Your task to perform on an android device: turn off smart reply in the gmail app Image 0: 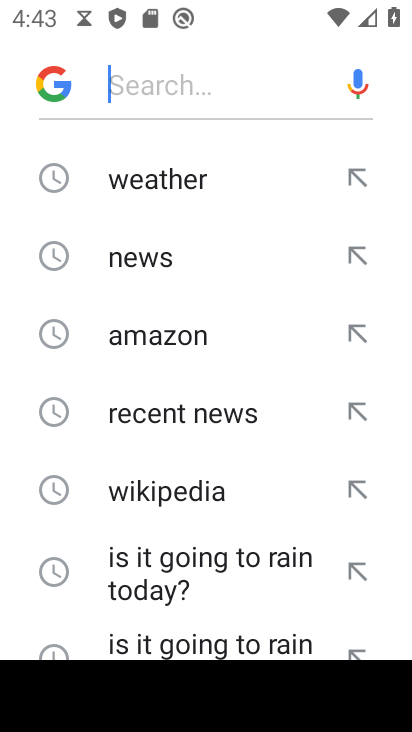
Step 0: press back button
Your task to perform on an android device: turn off smart reply in the gmail app Image 1: 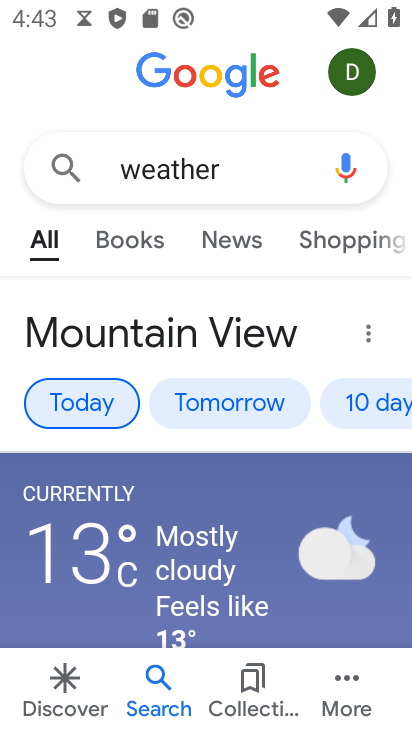
Step 1: press back button
Your task to perform on an android device: turn off smart reply in the gmail app Image 2: 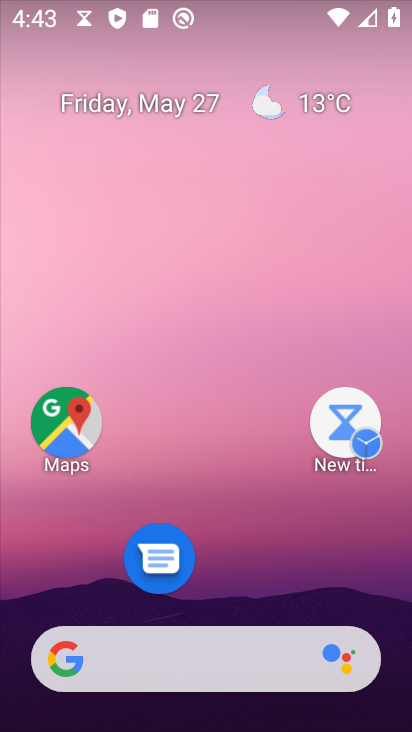
Step 2: drag from (276, 666) to (134, 52)
Your task to perform on an android device: turn off smart reply in the gmail app Image 3: 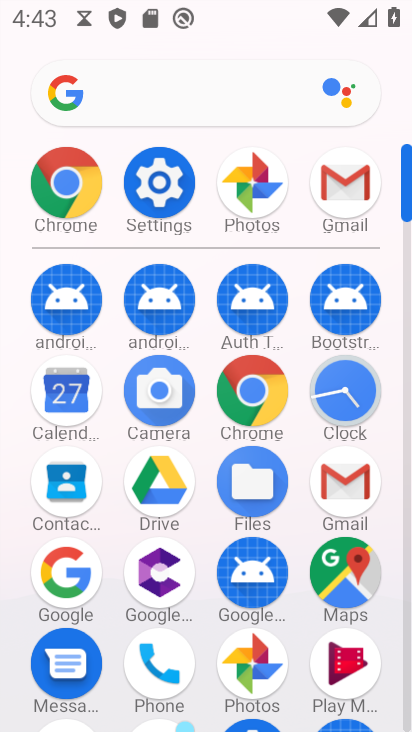
Step 3: click (345, 493)
Your task to perform on an android device: turn off smart reply in the gmail app Image 4: 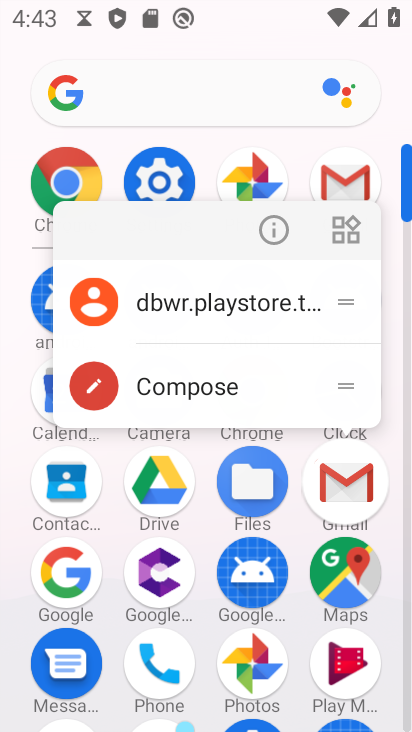
Step 4: click (346, 494)
Your task to perform on an android device: turn off smart reply in the gmail app Image 5: 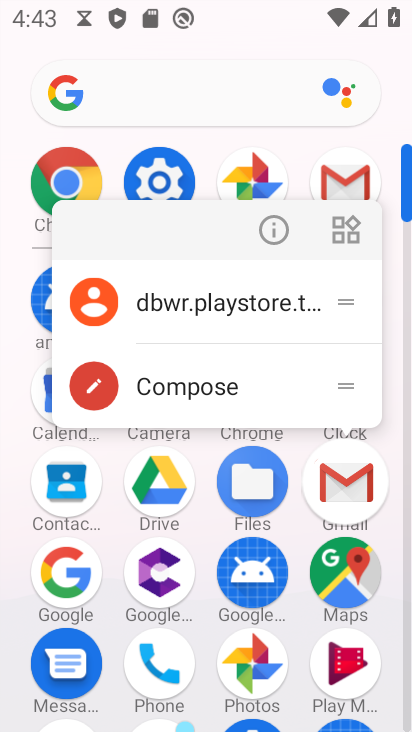
Step 5: click (346, 494)
Your task to perform on an android device: turn off smart reply in the gmail app Image 6: 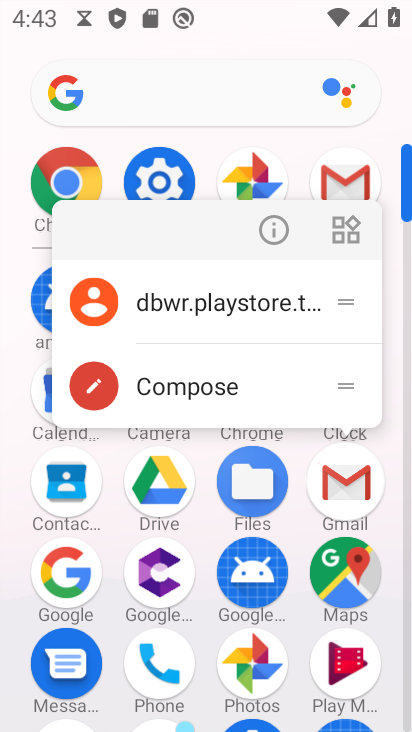
Step 6: click (346, 494)
Your task to perform on an android device: turn off smart reply in the gmail app Image 7: 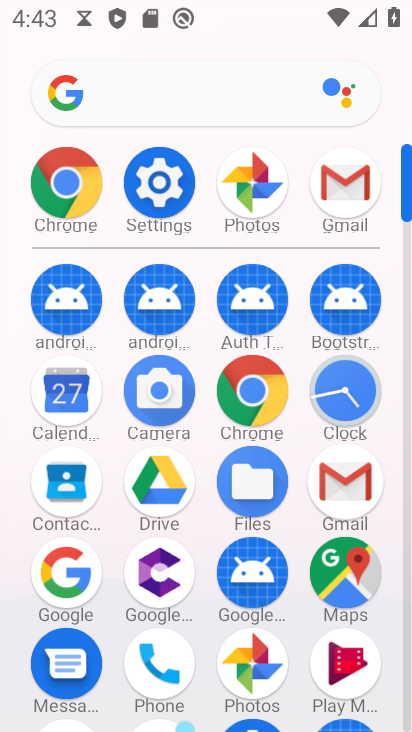
Step 7: click (347, 492)
Your task to perform on an android device: turn off smart reply in the gmail app Image 8: 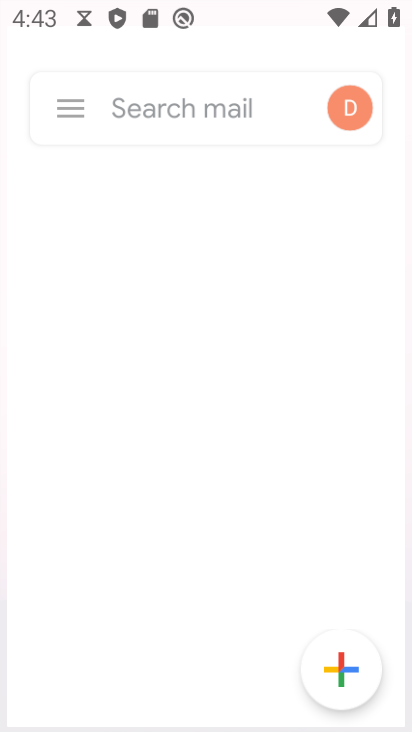
Step 8: click (337, 467)
Your task to perform on an android device: turn off smart reply in the gmail app Image 9: 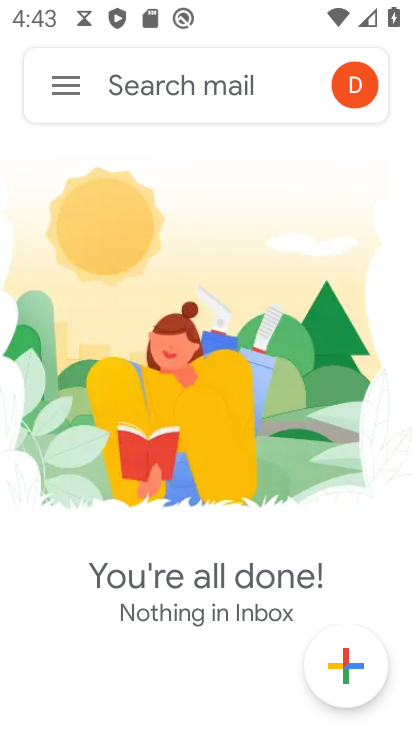
Step 9: click (337, 467)
Your task to perform on an android device: turn off smart reply in the gmail app Image 10: 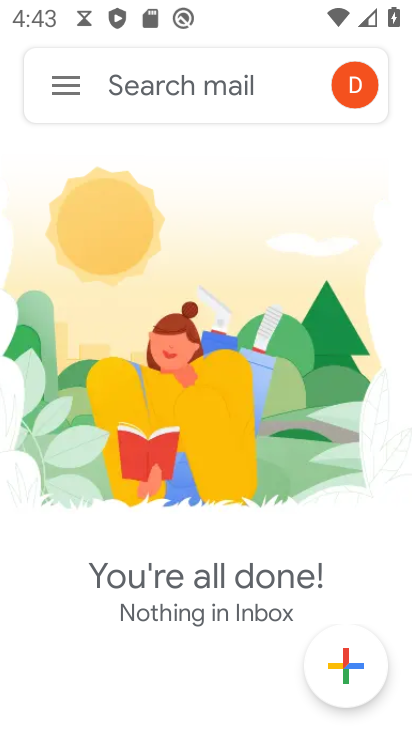
Step 10: click (337, 466)
Your task to perform on an android device: turn off smart reply in the gmail app Image 11: 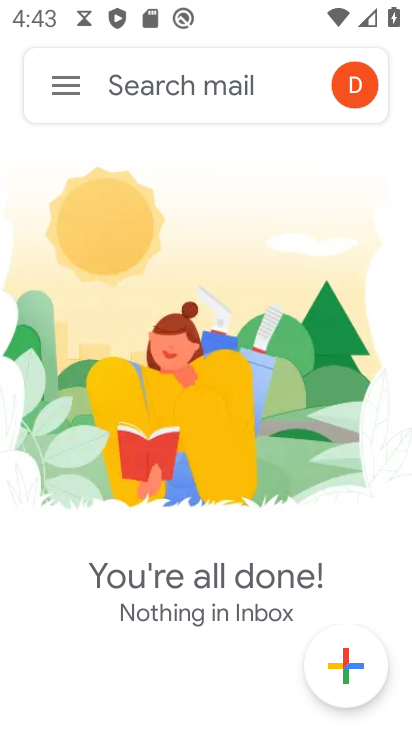
Step 11: click (70, 89)
Your task to perform on an android device: turn off smart reply in the gmail app Image 12: 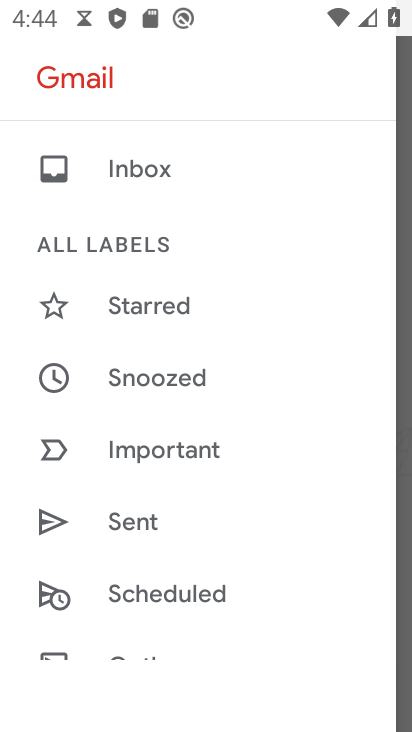
Step 12: drag from (141, 333) to (116, 175)
Your task to perform on an android device: turn off smart reply in the gmail app Image 13: 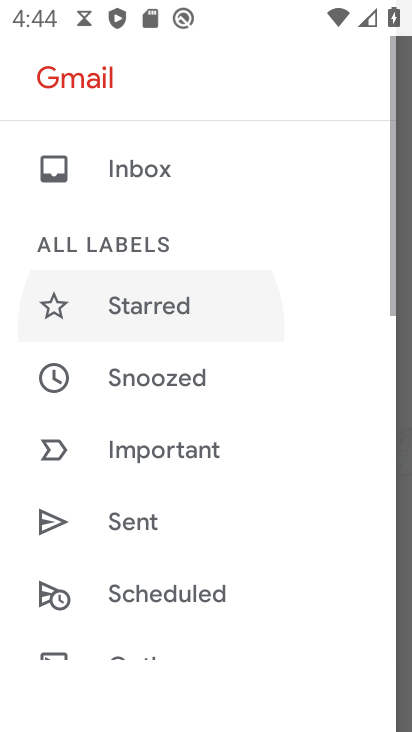
Step 13: drag from (196, 500) to (195, 160)
Your task to perform on an android device: turn off smart reply in the gmail app Image 14: 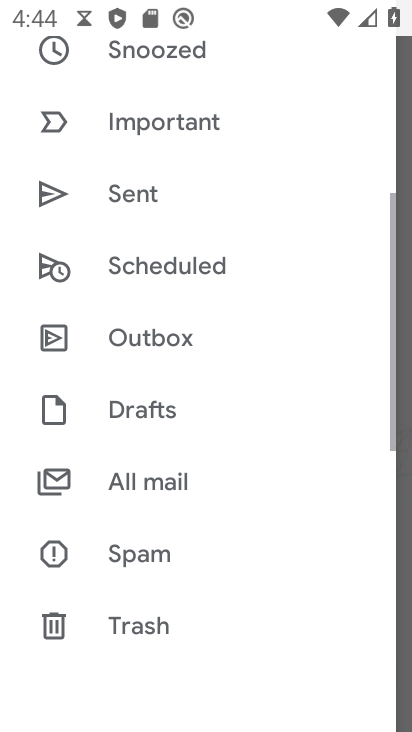
Step 14: drag from (222, 246) to (200, 172)
Your task to perform on an android device: turn off smart reply in the gmail app Image 15: 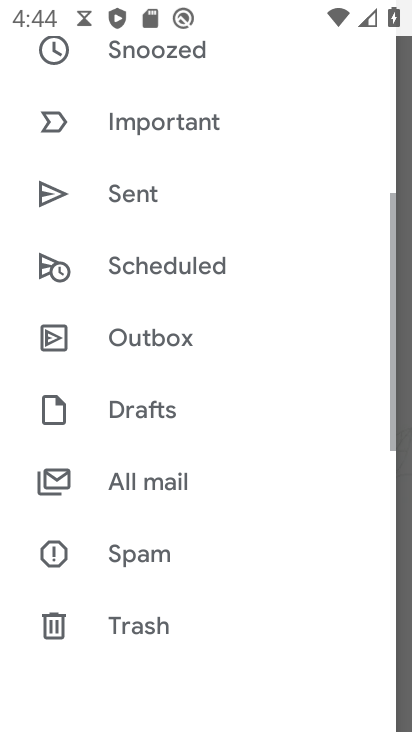
Step 15: drag from (204, 317) to (204, 52)
Your task to perform on an android device: turn off smart reply in the gmail app Image 16: 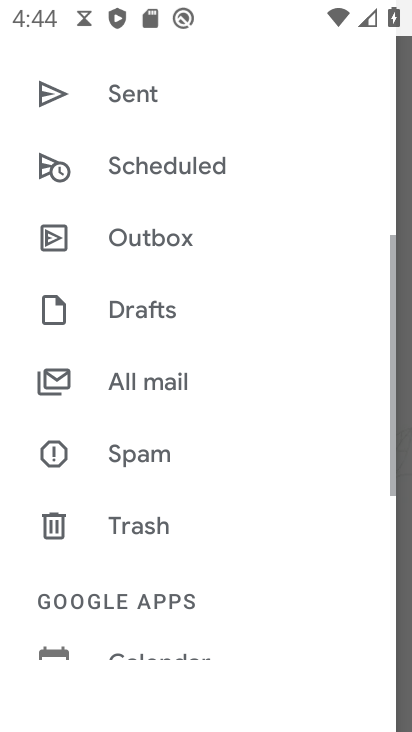
Step 16: drag from (201, 445) to (198, 138)
Your task to perform on an android device: turn off smart reply in the gmail app Image 17: 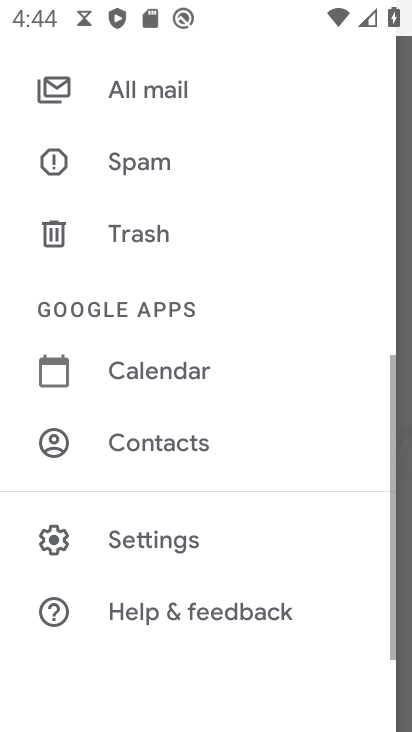
Step 17: drag from (203, 504) to (216, 214)
Your task to perform on an android device: turn off smart reply in the gmail app Image 18: 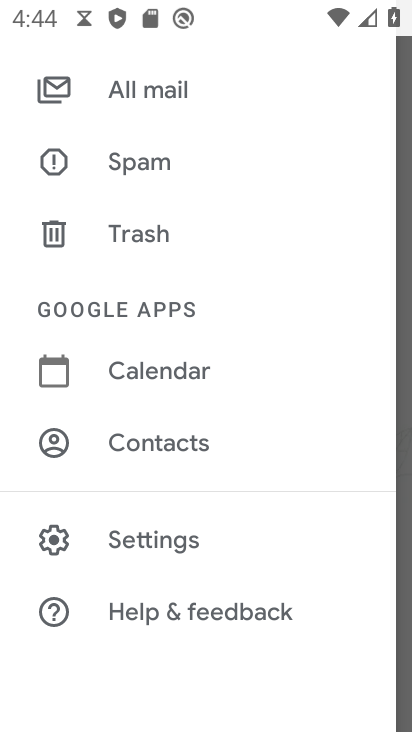
Step 18: click (149, 533)
Your task to perform on an android device: turn off smart reply in the gmail app Image 19: 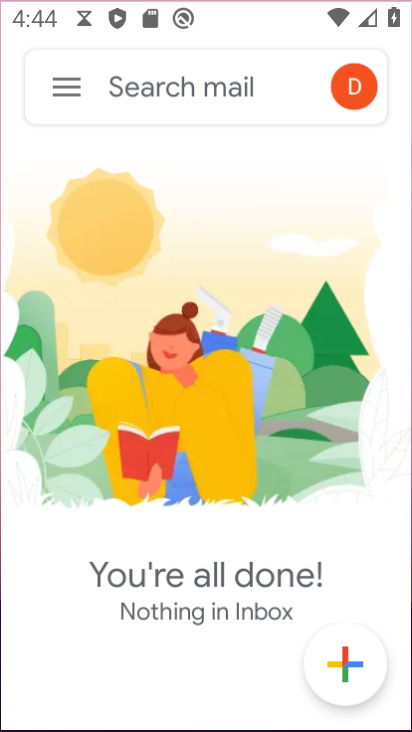
Step 19: click (154, 546)
Your task to perform on an android device: turn off smart reply in the gmail app Image 20: 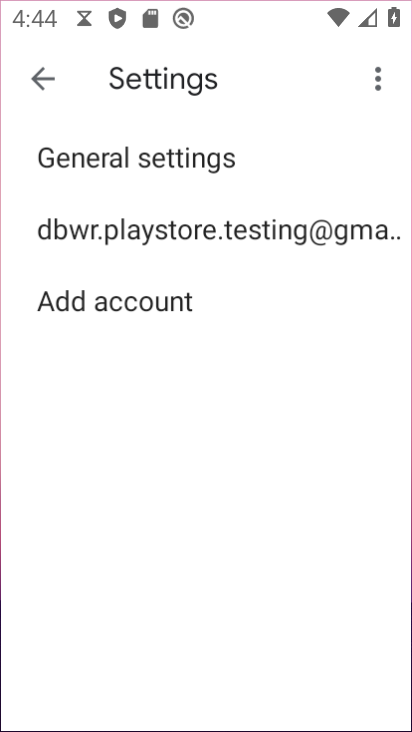
Step 20: click (154, 544)
Your task to perform on an android device: turn off smart reply in the gmail app Image 21: 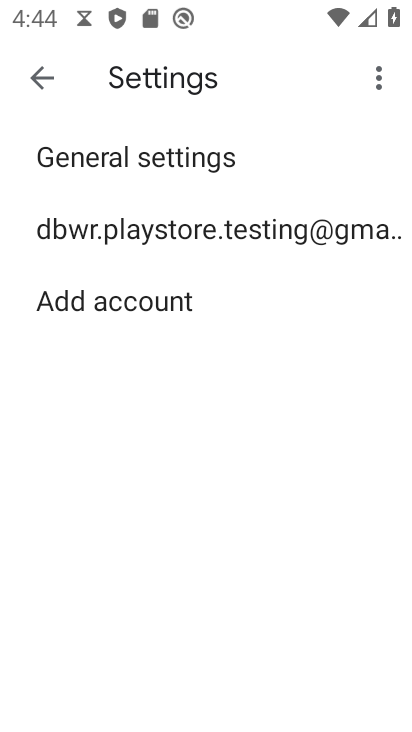
Step 21: click (154, 544)
Your task to perform on an android device: turn off smart reply in the gmail app Image 22: 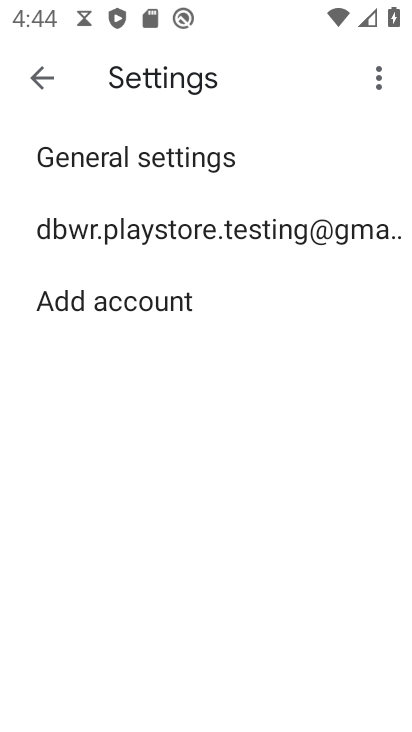
Step 22: click (161, 229)
Your task to perform on an android device: turn off smart reply in the gmail app Image 23: 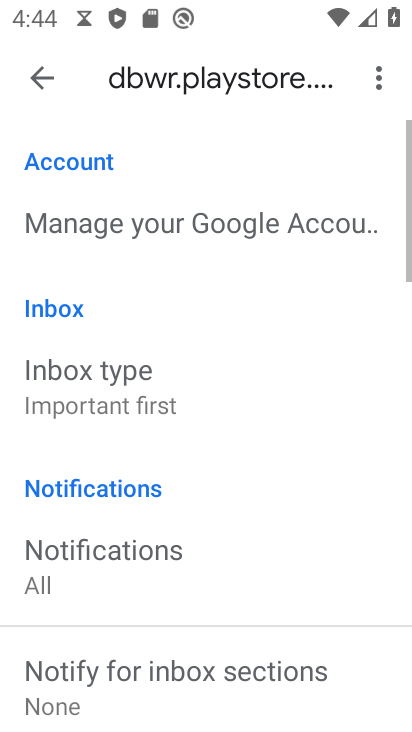
Step 23: click (161, 229)
Your task to perform on an android device: turn off smart reply in the gmail app Image 24: 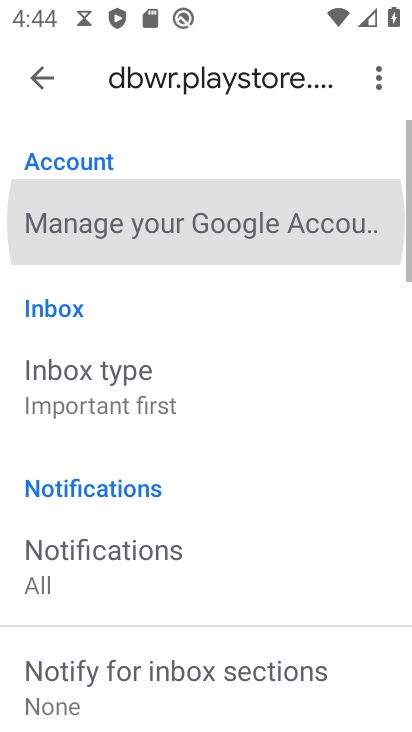
Step 24: click (161, 229)
Your task to perform on an android device: turn off smart reply in the gmail app Image 25: 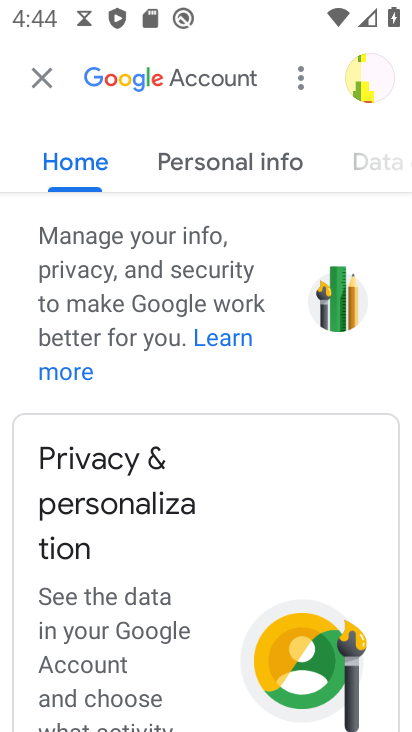
Step 25: click (42, 62)
Your task to perform on an android device: turn off smart reply in the gmail app Image 26: 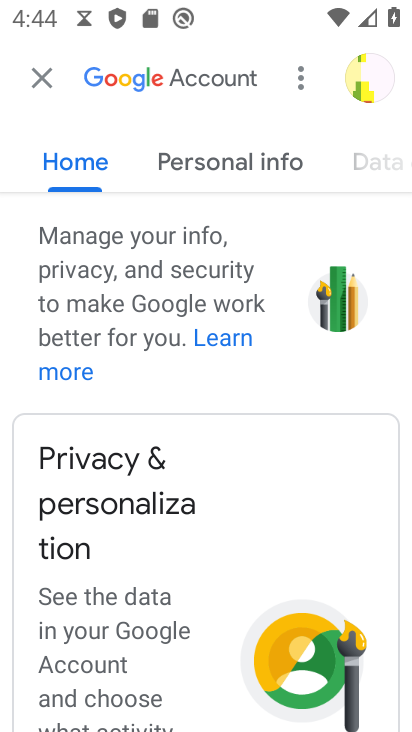
Step 26: click (45, 70)
Your task to perform on an android device: turn off smart reply in the gmail app Image 27: 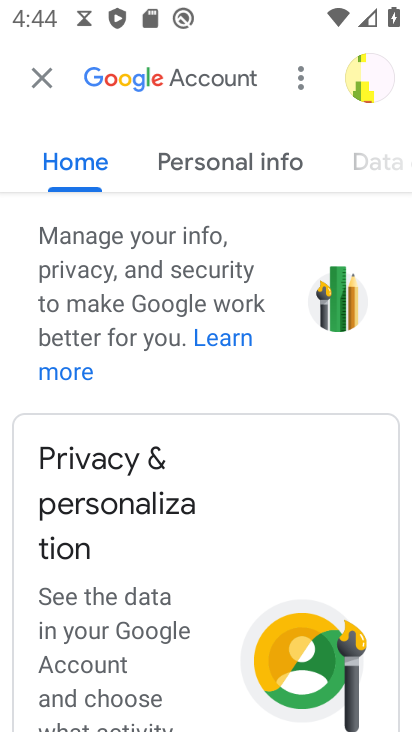
Step 27: click (54, 76)
Your task to perform on an android device: turn off smart reply in the gmail app Image 28: 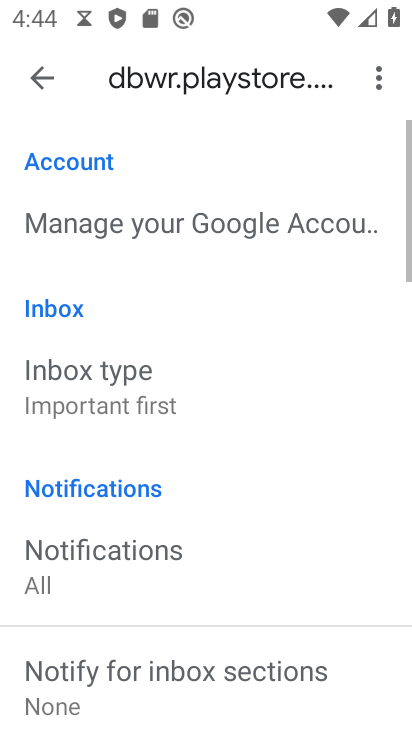
Step 28: click (49, 65)
Your task to perform on an android device: turn off smart reply in the gmail app Image 29: 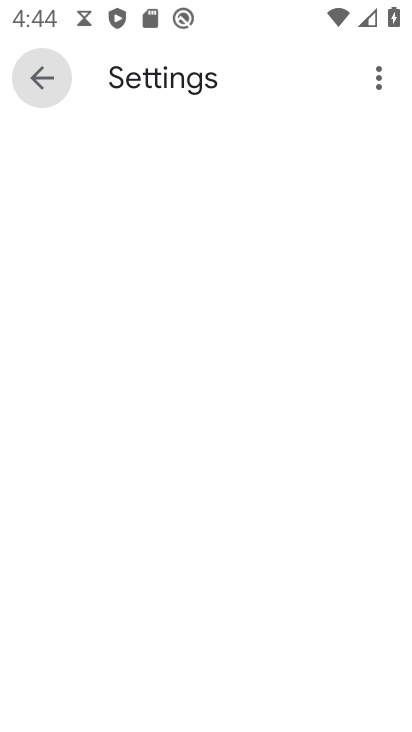
Step 29: click (43, 77)
Your task to perform on an android device: turn off smart reply in the gmail app Image 30: 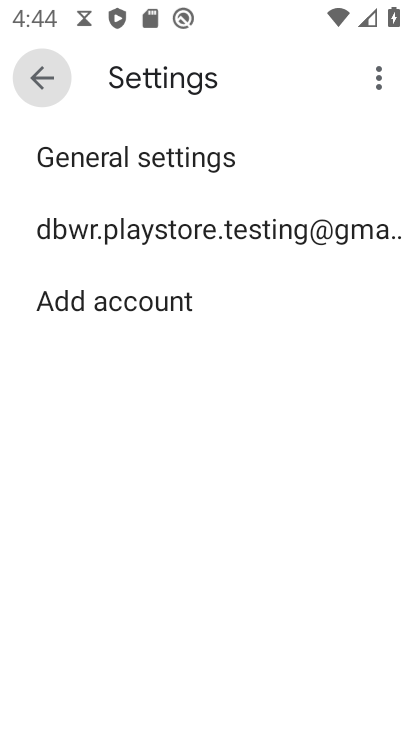
Step 30: click (43, 77)
Your task to perform on an android device: turn off smart reply in the gmail app Image 31: 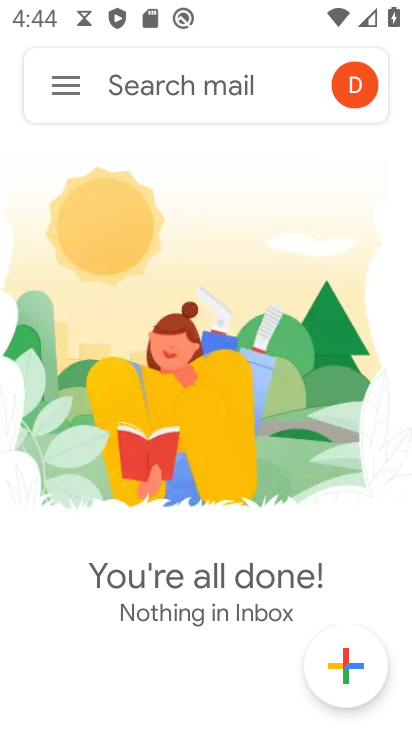
Step 31: click (59, 81)
Your task to perform on an android device: turn off smart reply in the gmail app Image 32: 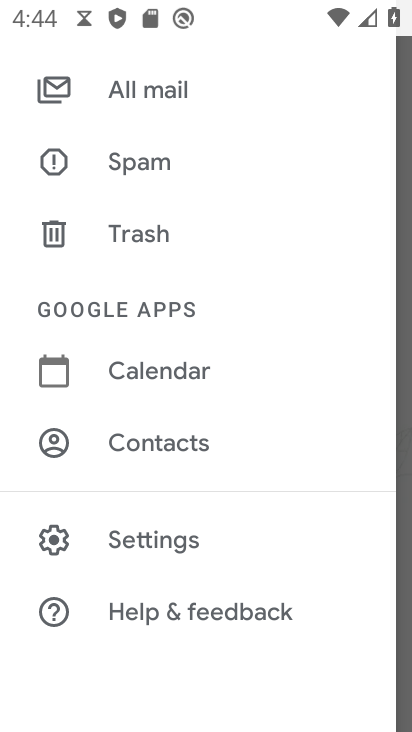
Step 32: click (409, 391)
Your task to perform on an android device: turn off smart reply in the gmail app Image 33: 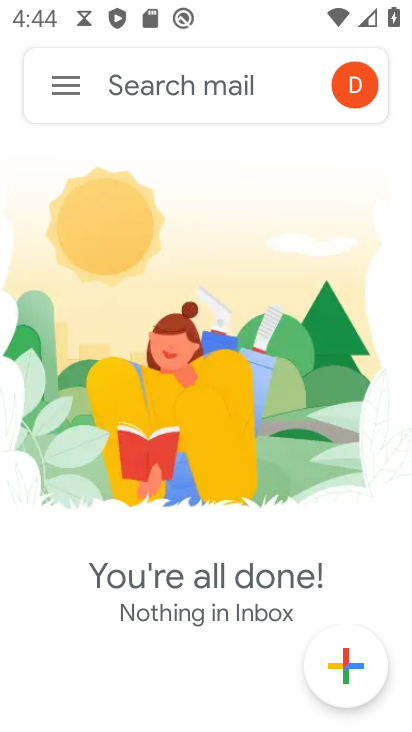
Step 33: click (72, 90)
Your task to perform on an android device: turn off smart reply in the gmail app Image 34: 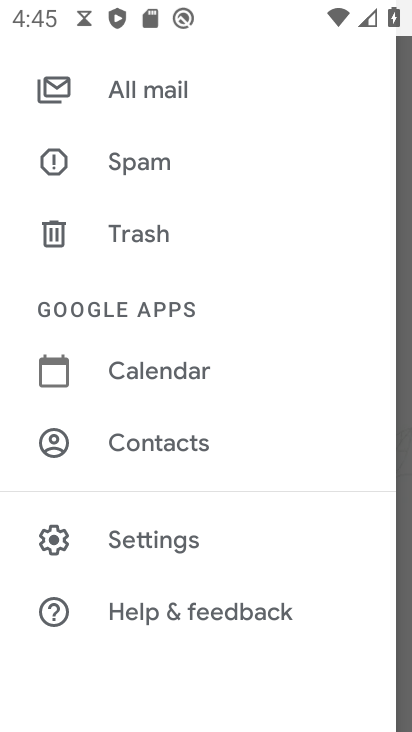
Step 34: click (151, 522)
Your task to perform on an android device: turn off smart reply in the gmail app Image 35: 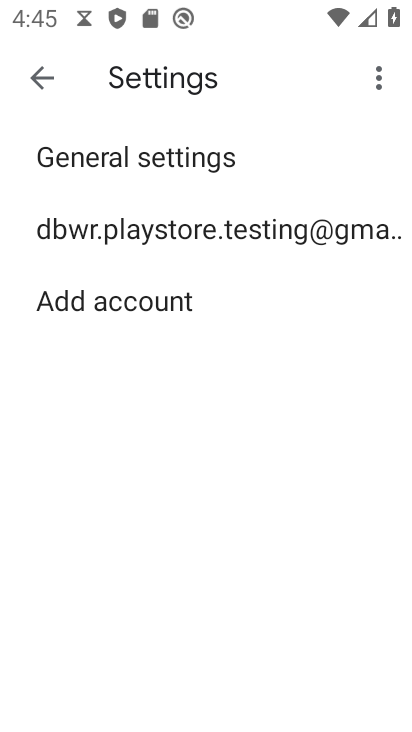
Step 35: click (115, 230)
Your task to perform on an android device: turn off smart reply in the gmail app Image 36: 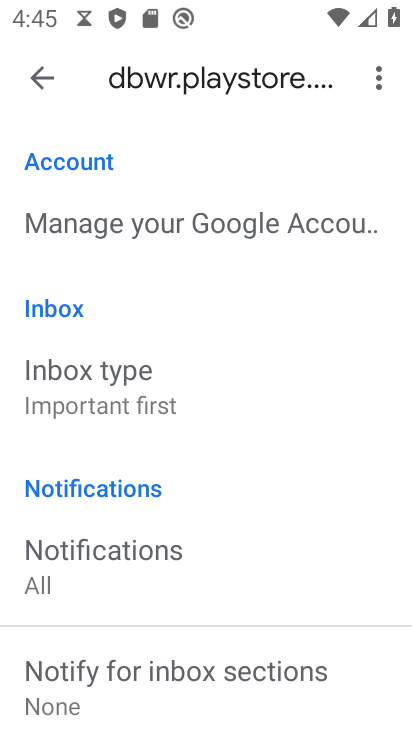
Step 36: drag from (116, 496) to (62, 183)
Your task to perform on an android device: turn off smart reply in the gmail app Image 37: 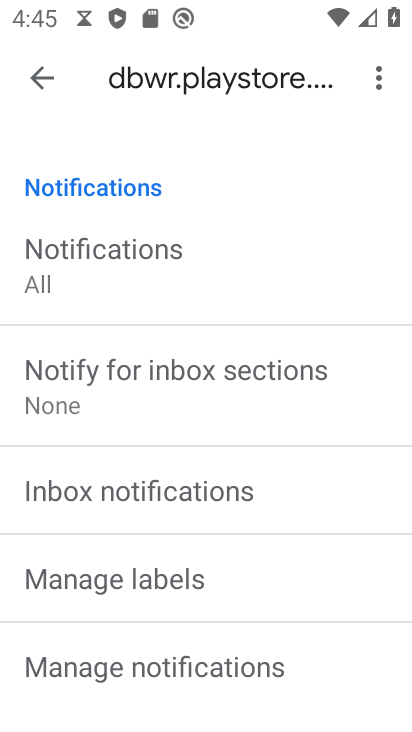
Step 37: drag from (125, 480) to (43, 44)
Your task to perform on an android device: turn off smart reply in the gmail app Image 38: 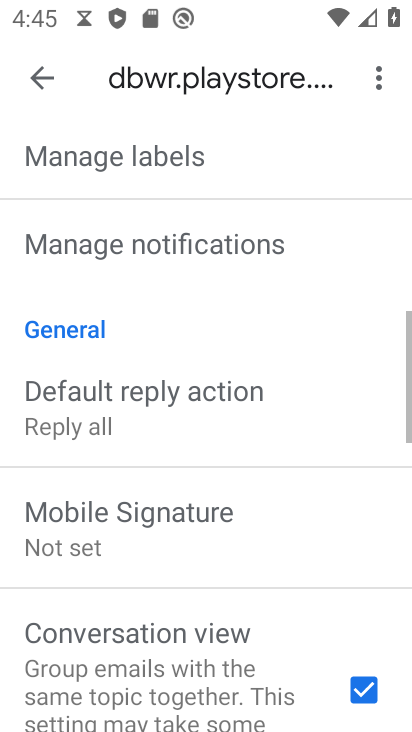
Step 38: drag from (139, 443) to (110, 121)
Your task to perform on an android device: turn off smart reply in the gmail app Image 39: 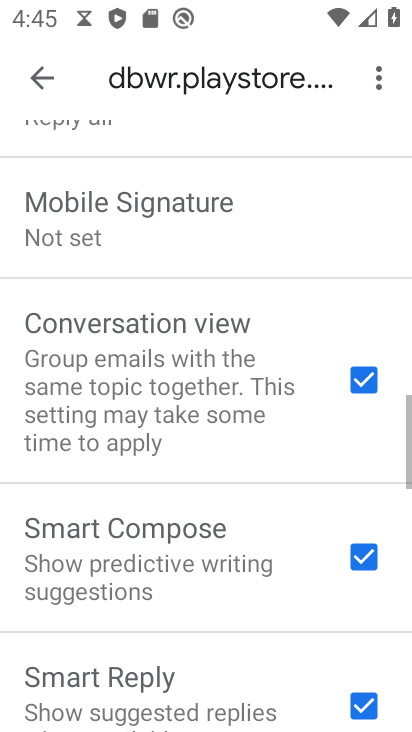
Step 39: drag from (158, 360) to (131, 88)
Your task to perform on an android device: turn off smart reply in the gmail app Image 40: 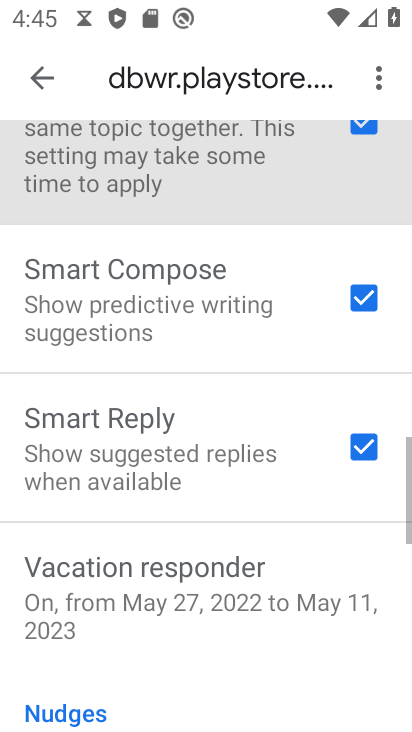
Step 40: drag from (130, 539) to (127, 278)
Your task to perform on an android device: turn off smart reply in the gmail app Image 41: 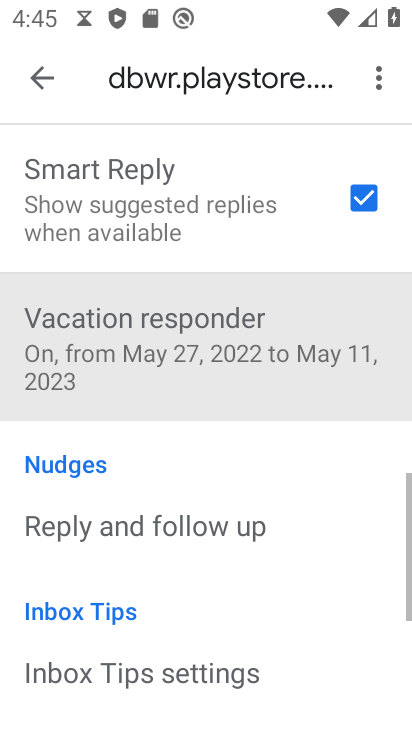
Step 41: drag from (185, 589) to (190, 315)
Your task to perform on an android device: turn off smart reply in the gmail app Image 42: 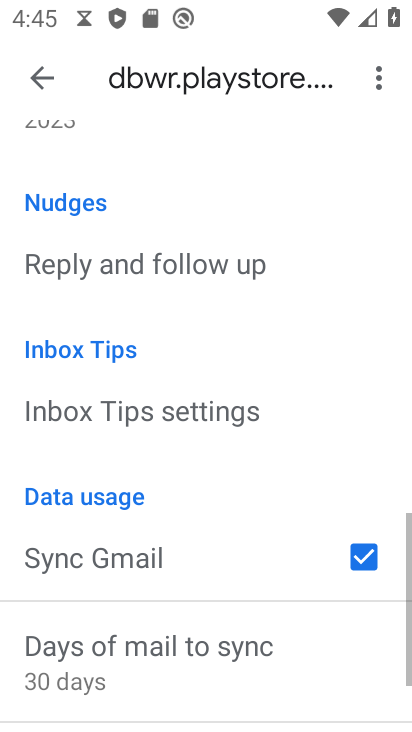
Step 42: drag from (138, 619) to (79, 245)
Your task to perform on an android device: turn off smart reply in the gmail app Image 43: 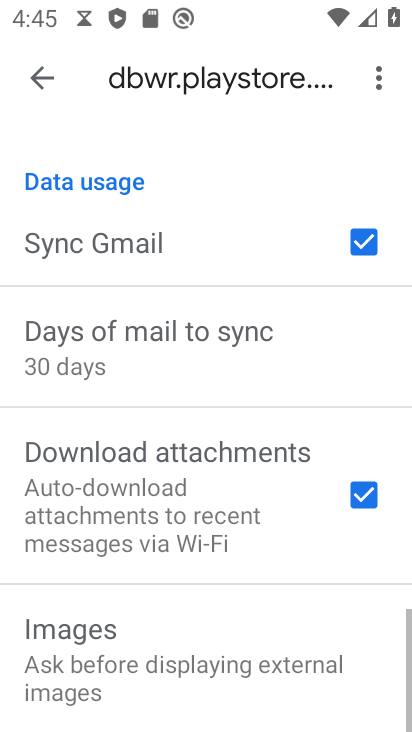
Step 43: drag from (151, 483) to (186, 724)
Your task to perform on an android device: turn off smart reply in the gmail app Image 44: 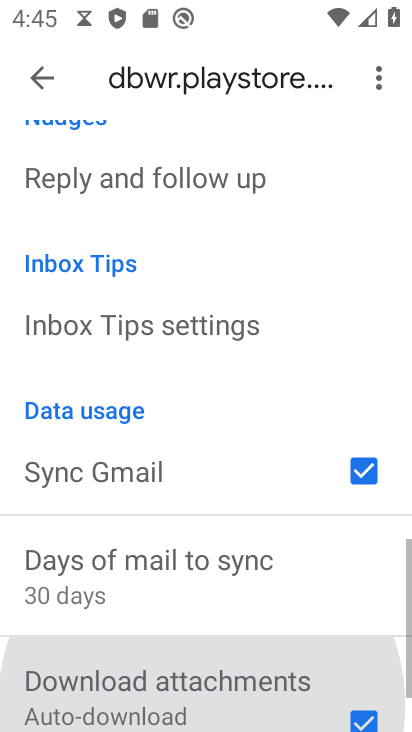
Step 44: drag from (139, 437) to (164, 608)
Your task to perform on an android device: turn off smart reply in the gmail app Image 45: 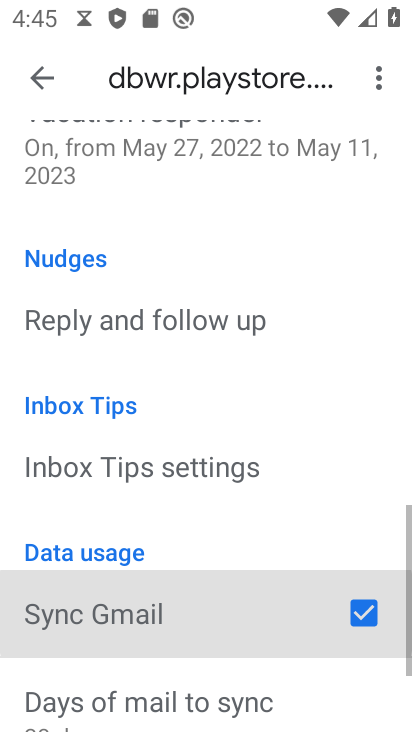
Step 45: drag from (154, 588) to (157, 650)
Your task to perform on an android device: turn off smart reply in the gmail app Image 46: 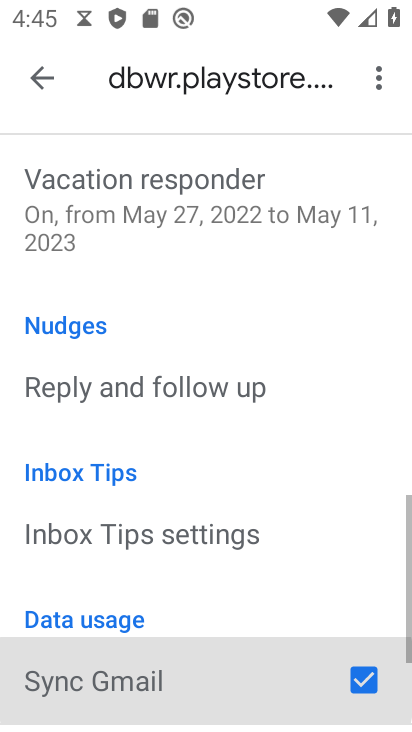
Step 46: drag from (141, 635) to (148, 687)
Your task to perform on an android device: turn off smart reply in the gmail app Image 47: 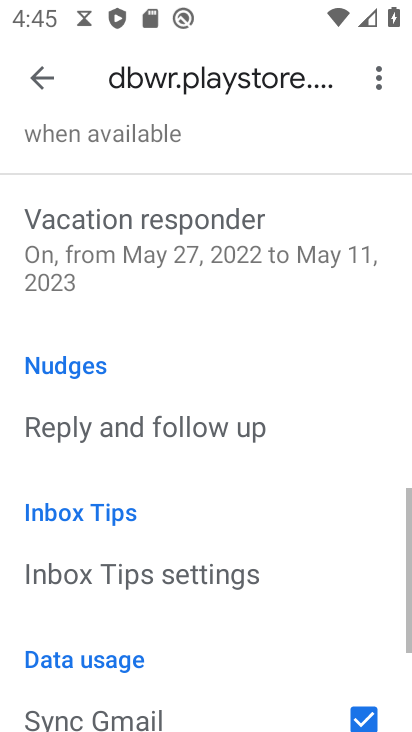
Step 47: drag from (104, 422) to (102, 665)
Your task to perform on an android device: turn off smart reply in the gmail app Image 48: 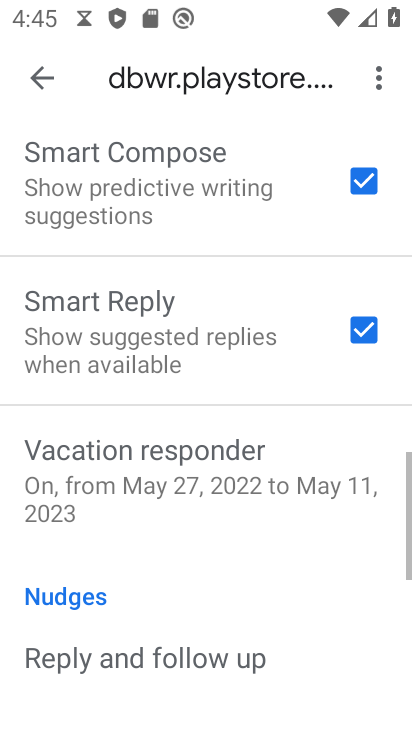
Step 48: drag from (115, 644) to (130, 711)
Your task to perform on an android device: turn off smart reply in the gmail app Image 49: 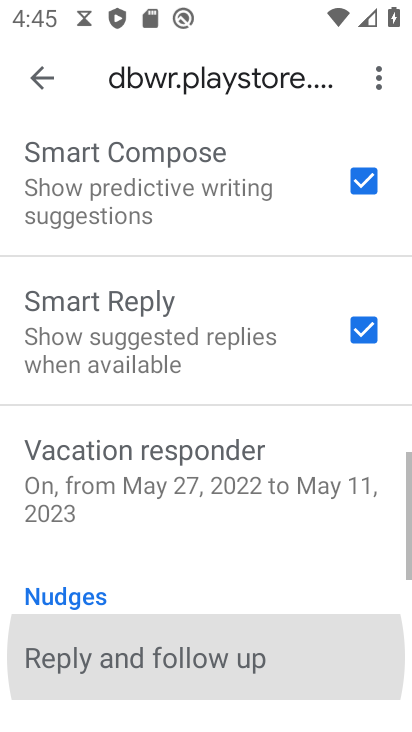
Step 49: drag from (153, 294) to (181, 625)
Your task to perform on an android device: turn off smart reply in the gmail app Image 50: 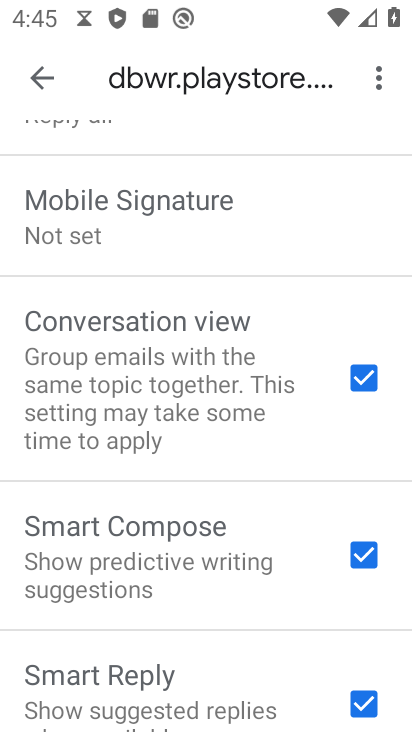
Step 50: click (366, 707)
Your task to perform on an android device: turn off smart reply in the gmail app Image 51: 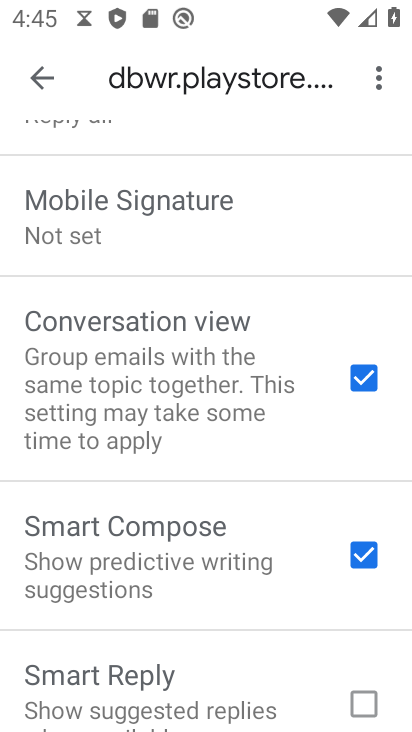
Step 51: task complete